Your task to perform on an android device: open app "ColorNote Notepad Notes" (install if not already installed) and enter user name: "unbridled@gmail.com" and password: "regularly" Image 0: 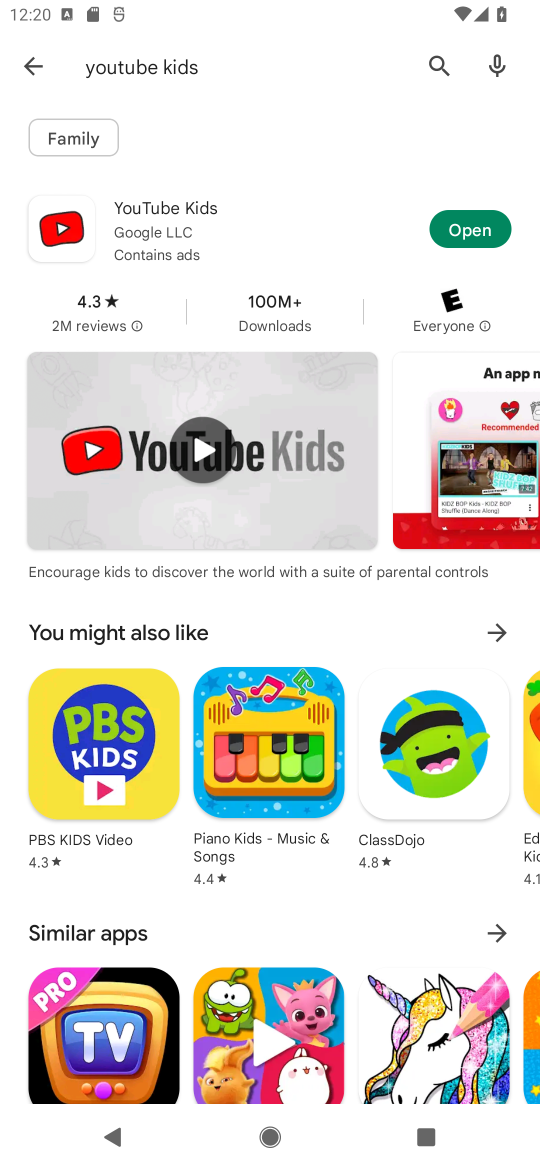
Step 0: press home button
Your task to perform on an android device: open app "ColorNote Notepad Notes" (install if not already installed) and enter user name: "unbridled@gmail.com" and password: "regularly" Image 1: 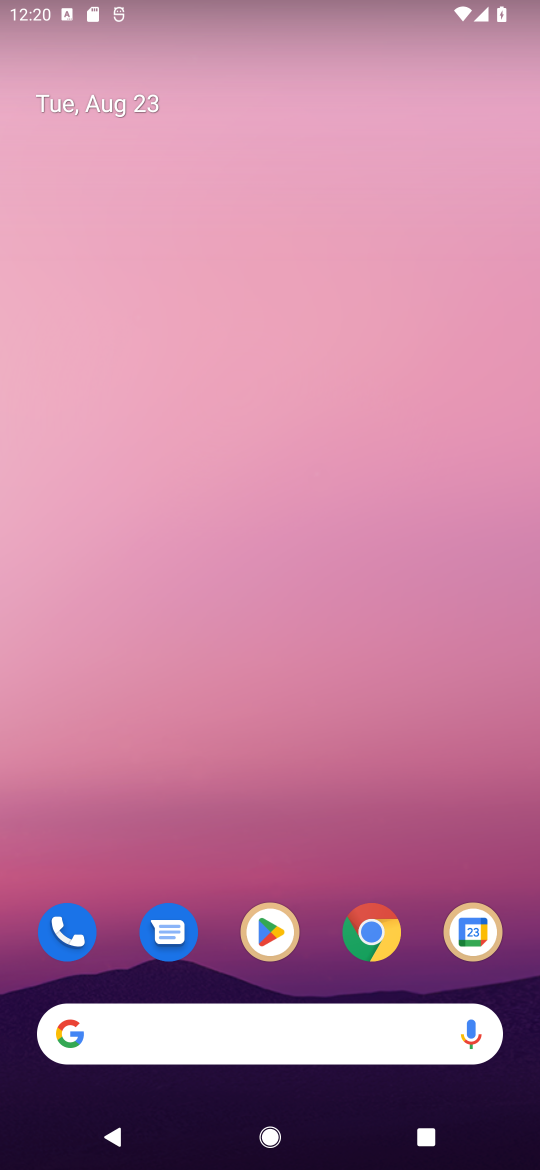
Step 1: click (270, 929)
Your task to perform on an android device: open app "ColorNote Notepad Notes" (install if not already installed) and enter user name: "unbridled@gmail.com" and password: "regularly" Image 2: 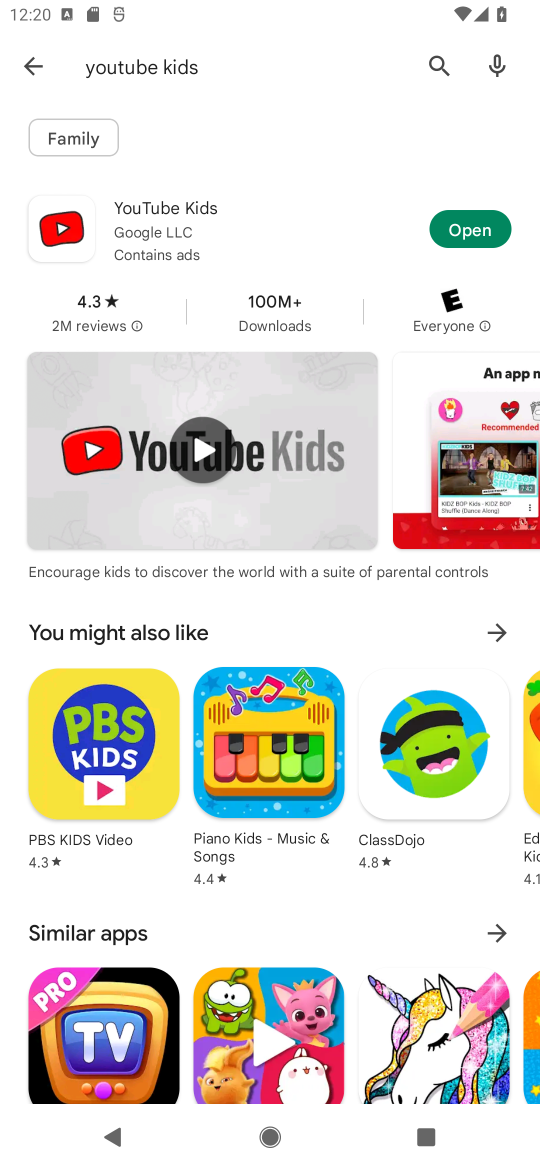
Step 2: click (433, 61)
Your task to perform on an android device: open app "ColorNote Notepad Notes" (install if not already installed) and enter user name: "unbridled@gmail.com" and password: "regularly" Image 3: 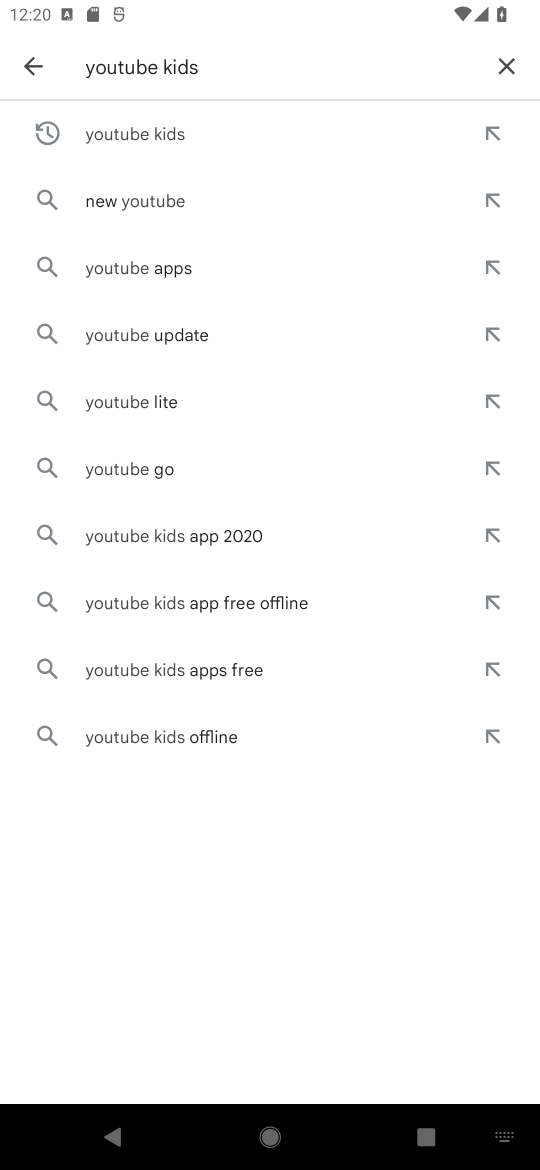
Step 3: click (501, 59)
Your task to perform on an android device: open app "ColorNote Notepad Notes" (install if not already installed) and enter user name: "unbridled@gmail.com" and password: "regularly" Image 4: 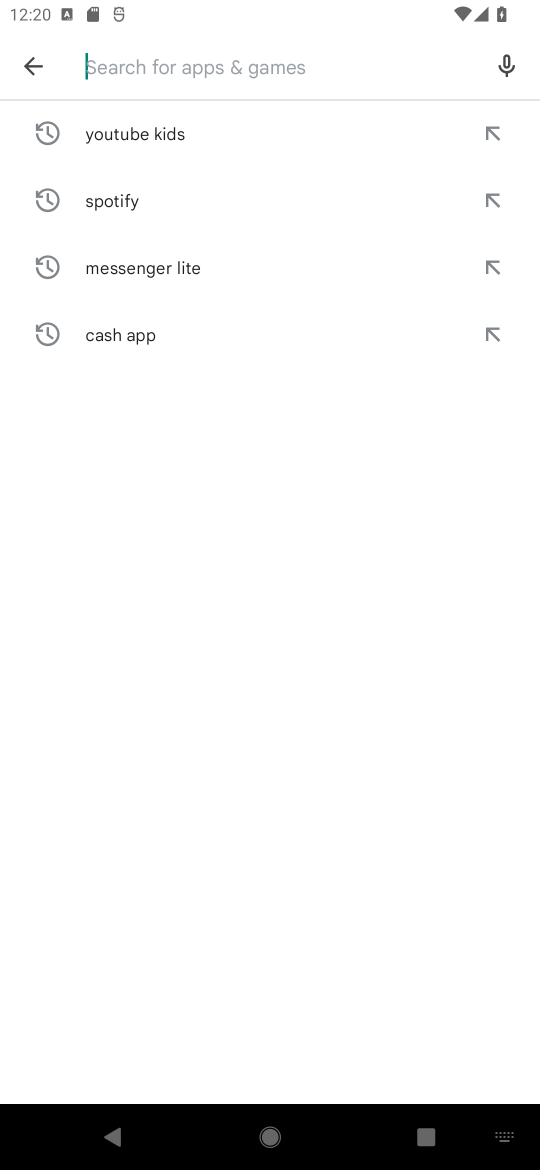
Step 4: click (151, 63)
Your task to perform on an android device: open app "ColorNote Notepad Notes" (install if not already installed) and enter user name: "unbridled@gmail.com" and password: "regularly" Image 5: 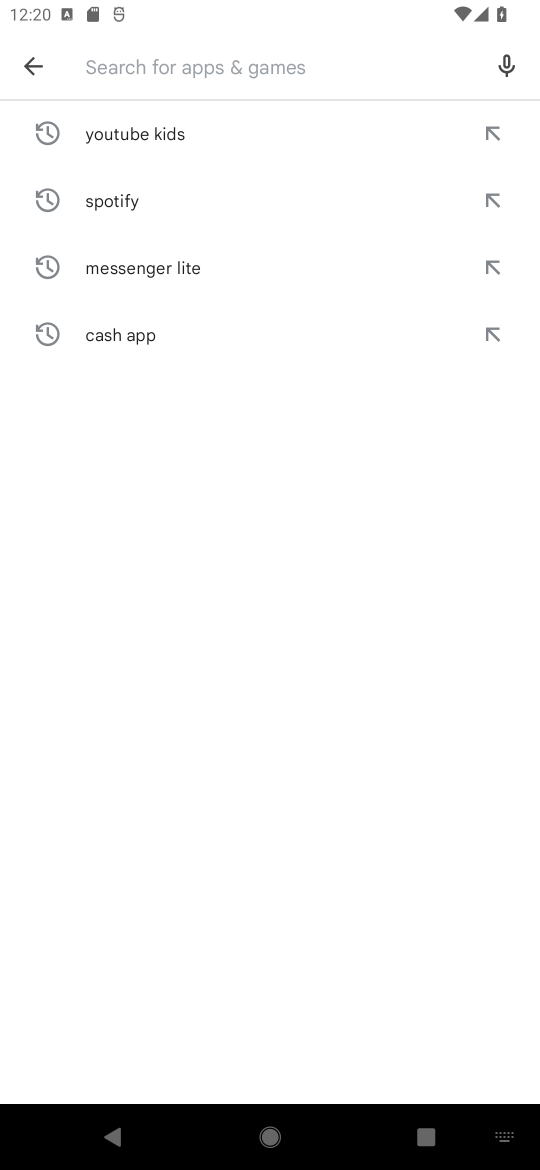
Step 5: type "ColorNote Notepad Notes"
Your task to perform on an android device: open app "ColorNote Notepad Notes" (install if not already installed) and enter user name: "unbridled@gmail.com" and password: "regularly" Image 6: 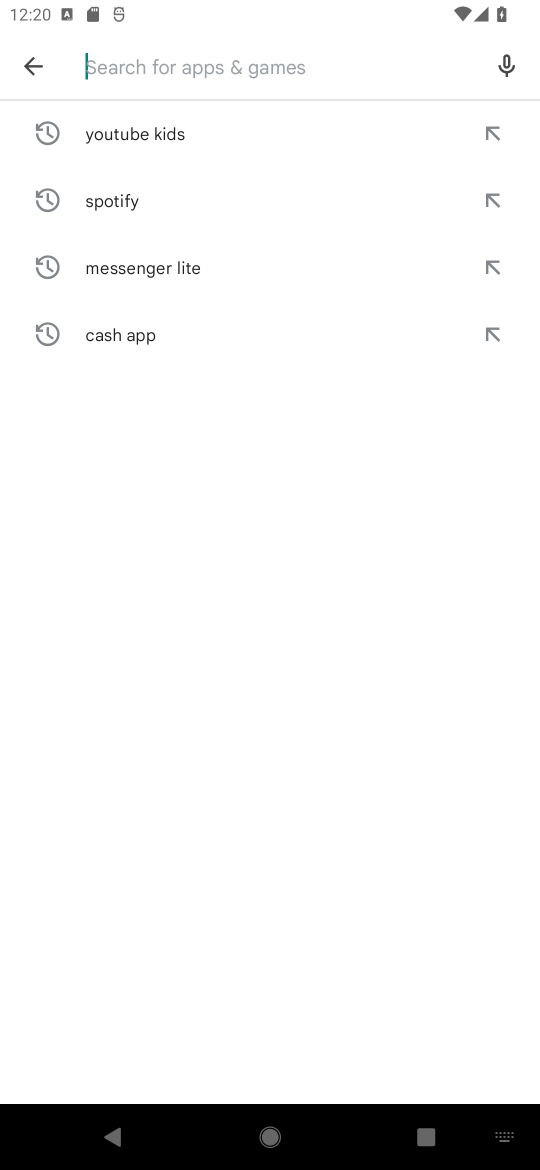
Step 6: click (144, 788)
Your task to perform on an android device: open app "ColorNote Notepad Notes" (install if not already installed) and enter user name: "unbridled@gmail.com" and password: "regularly" Image 7: 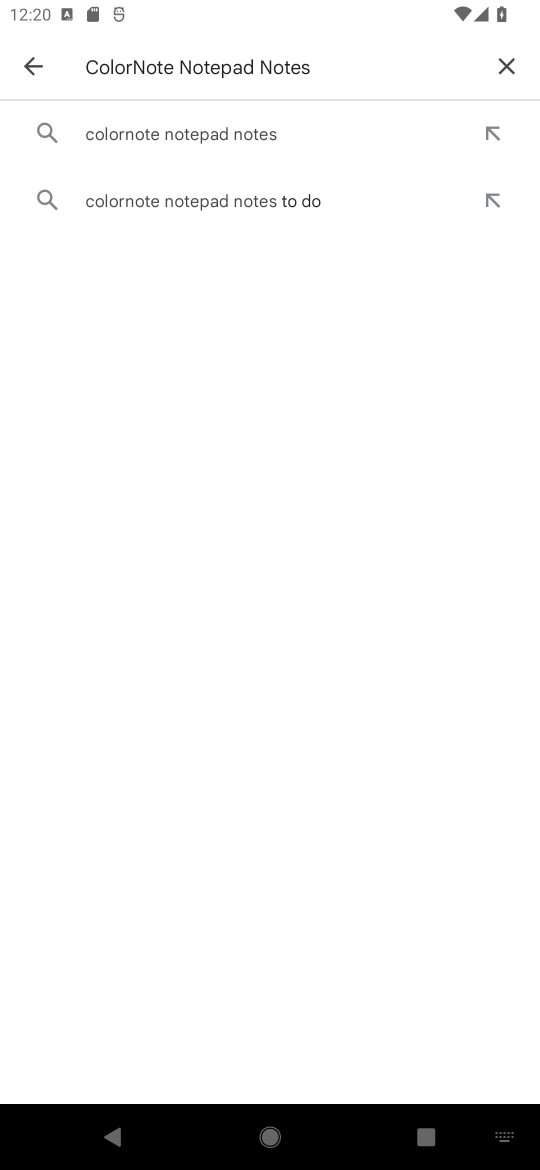
Step 7: click (208, 121)
Your task to perform on an android device: open app "ColorNote Notepad Notes" (install if not already installed) and enter user name: "unbridled@gmail.com" and password: "regularly" Image 8: 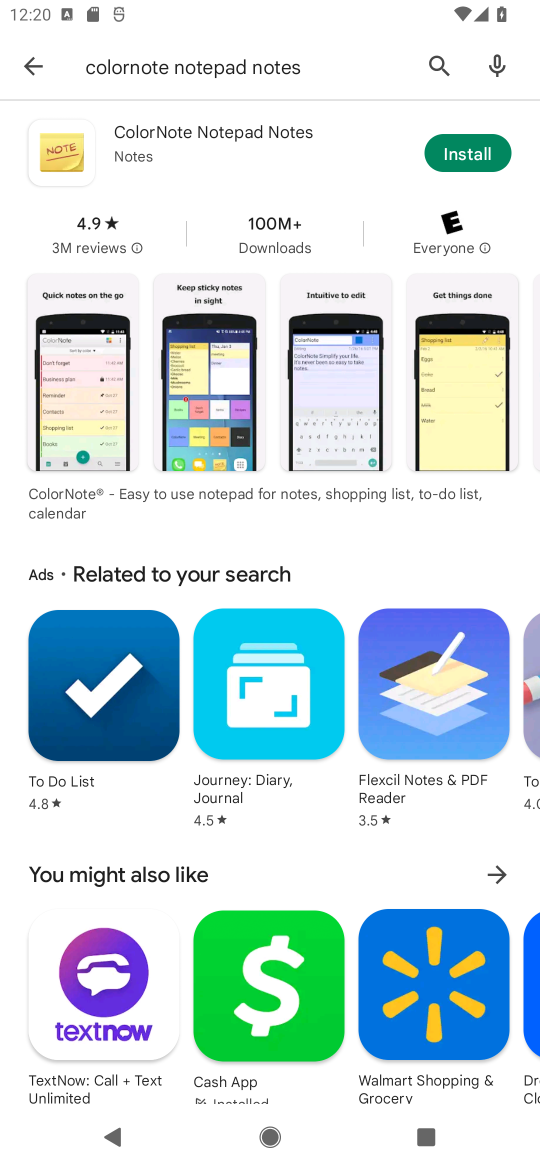
Step 8: click (453, 145)
Your task to perform on an android device: open app "ColorNote Notepad Notes" (install if not already installed) and enter user name: "unbridled@gmail.com" and password: "regularly" Image 9: 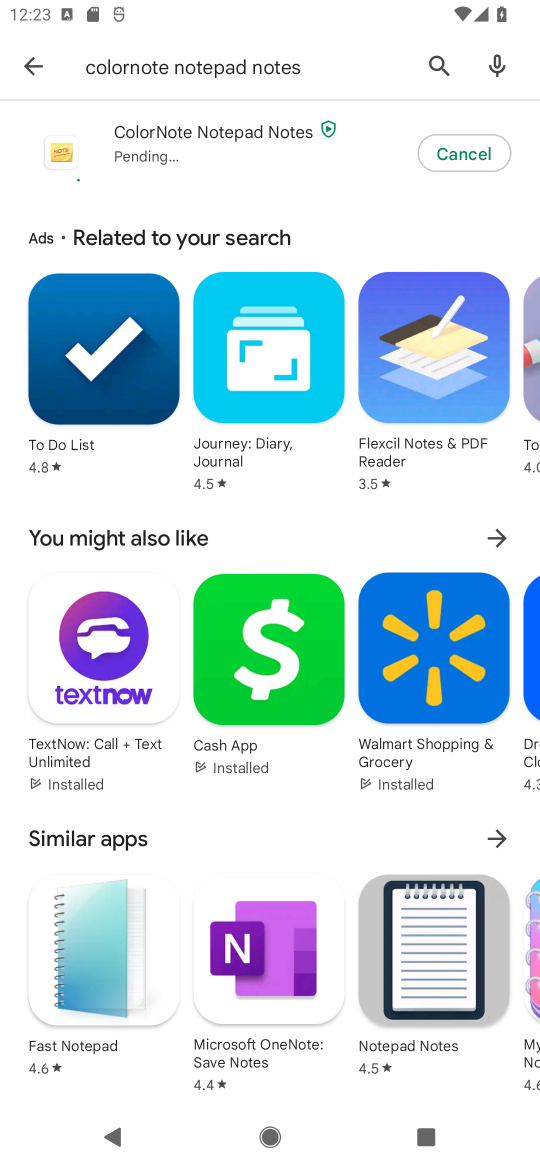
Step 9: press back button
Your task to perform on an android device: open app "ColorNote Notepad Notes" (install if not already installed) and enter user name: "unbridled@gmail.com" and password: "regularly" Image 10: 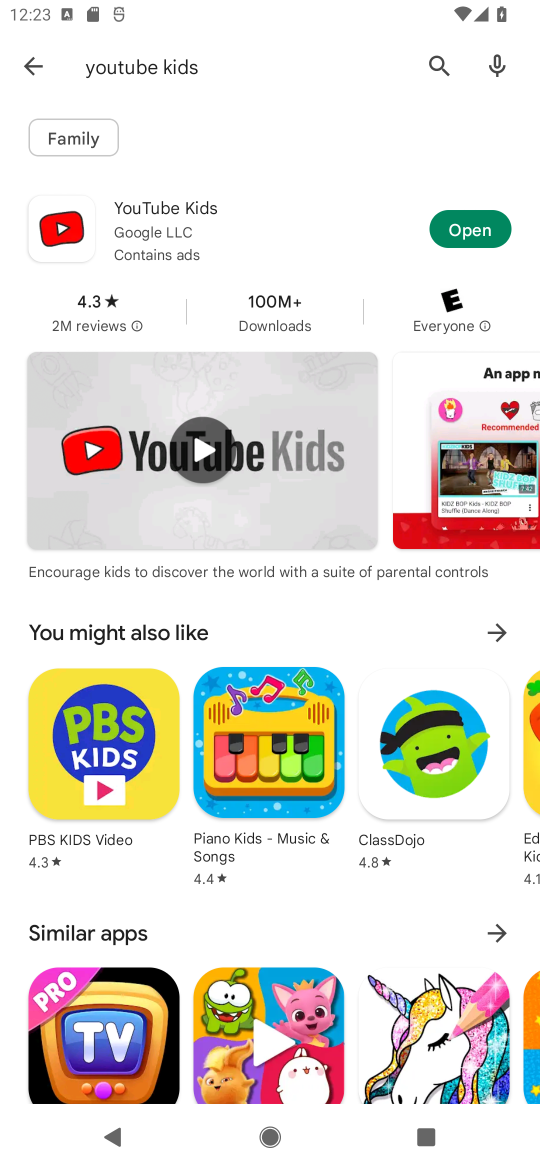
Step 10: click (444, 49)
Your task to perform on an android device: open app "ColorNote Notepad Notes" (install if not already installed) and enter user name: "unbridled@gmail.com" and password: "regularly" Image 11: 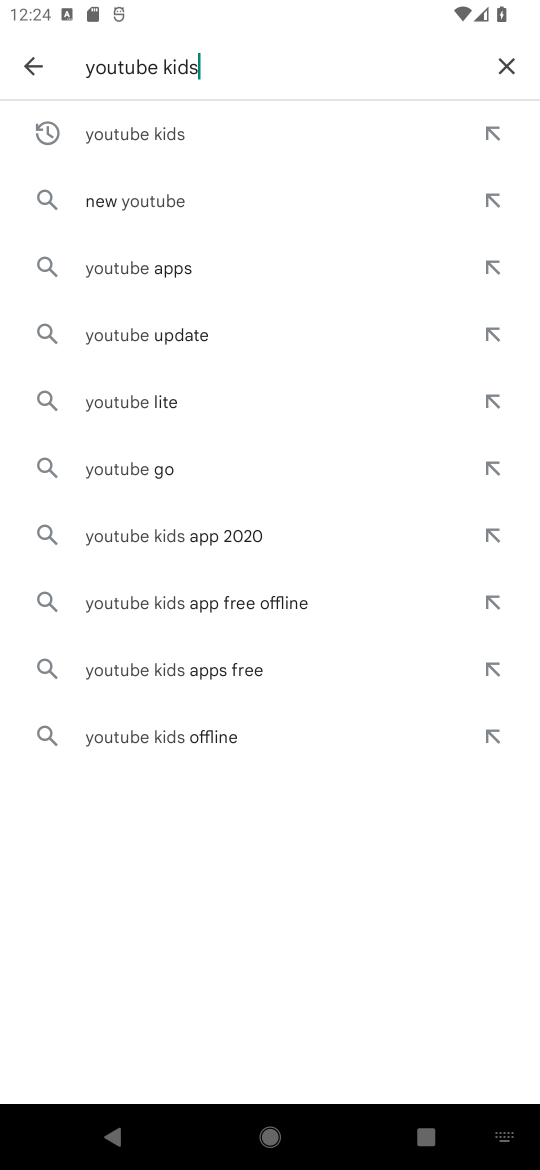
Step 11: click (497, 67)
Your task to perform on an android device: open app "ColorNote Notepad Notes" (install if not already installed) and enter user name: "unbridled@gmail.com" and password: "regularly" Image 12: 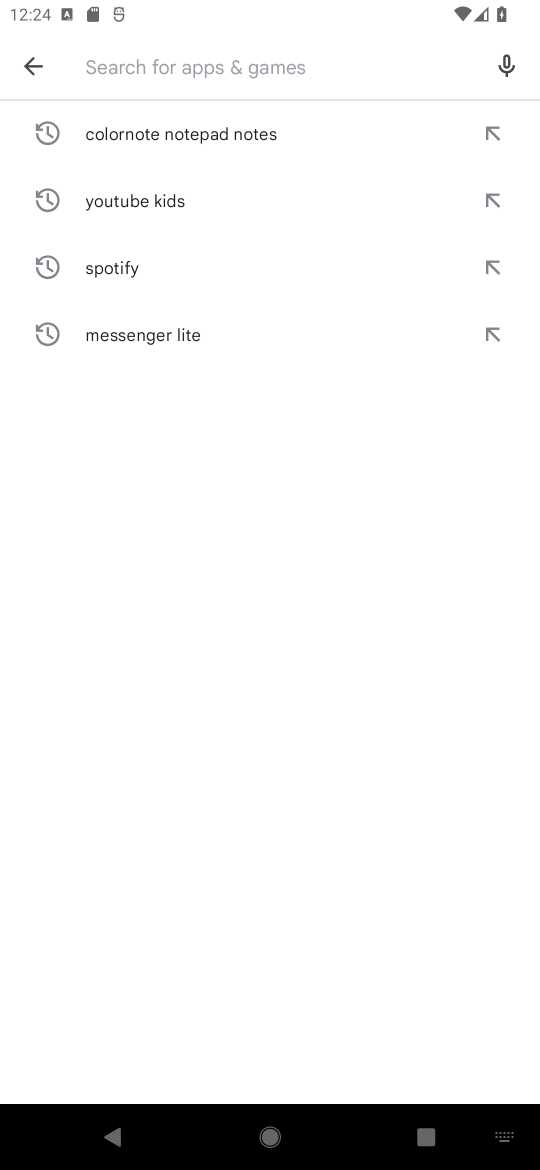
Step 12: click (190, 121)
Your task to perform on an android device: open app "ColorNote Notepad Notes" (install if not already installed) and enter user name: "unbridled@gmail.com" and password: "regularly" Image 13: 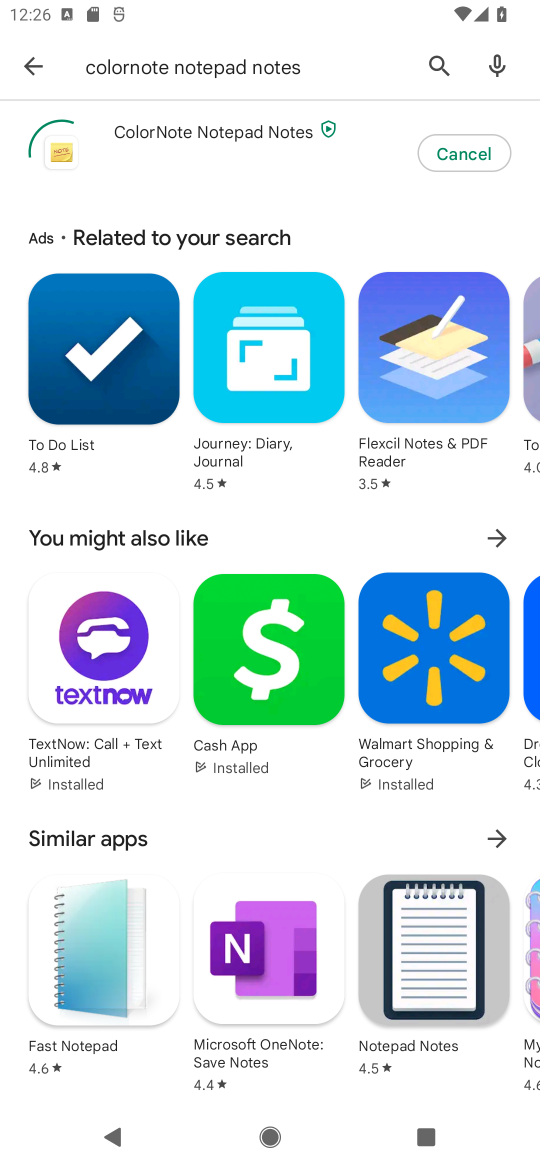
Step 13: task complete